Your task to perform on an android device: Open Chrome and go to settings Image 0: 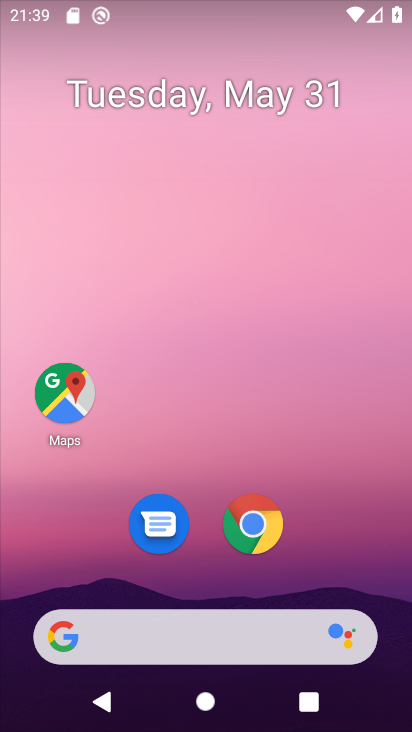
Step 0: click (256, 516)
Your task to perform on an android device: Open Chrome and go to settings Image 1: 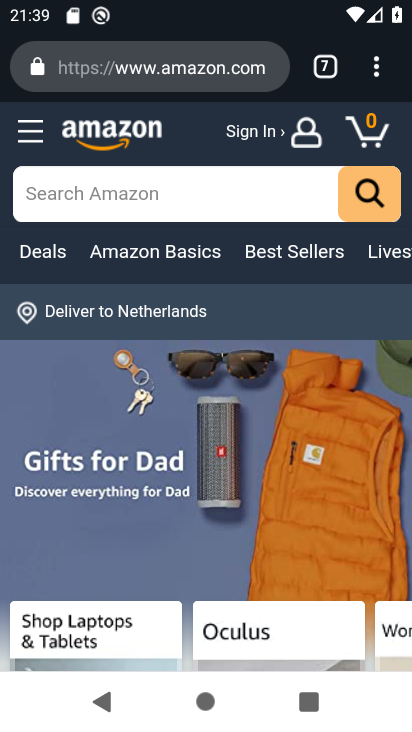
Step 1: click (378, 69)
Your task to perform on an android device: Open Chrome and go to settings Image 2: 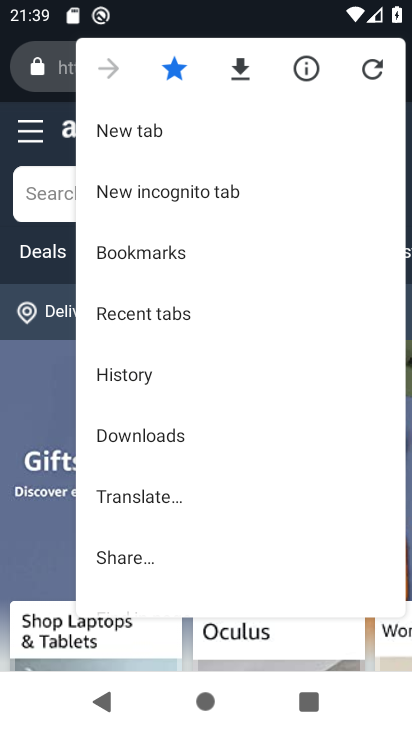
Step 2: drag from (254, 446) to (246, 221)
Your task to perform on an android device: Open Chrome and go to settings Image 3: 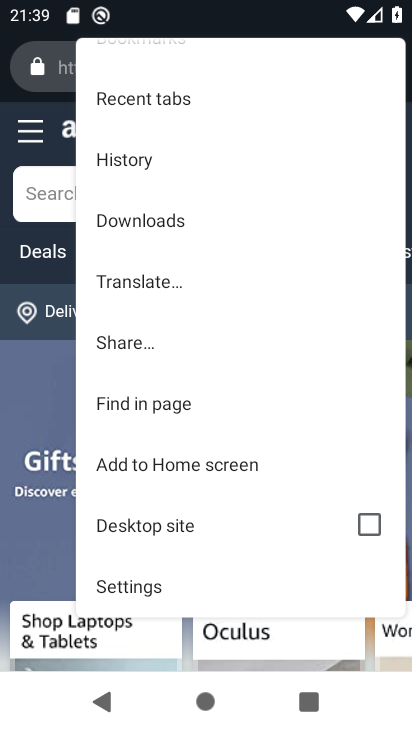
Step 3: click (210, 586)
Your task to perform on an android device: Open Chrome and go to settings Image 4: 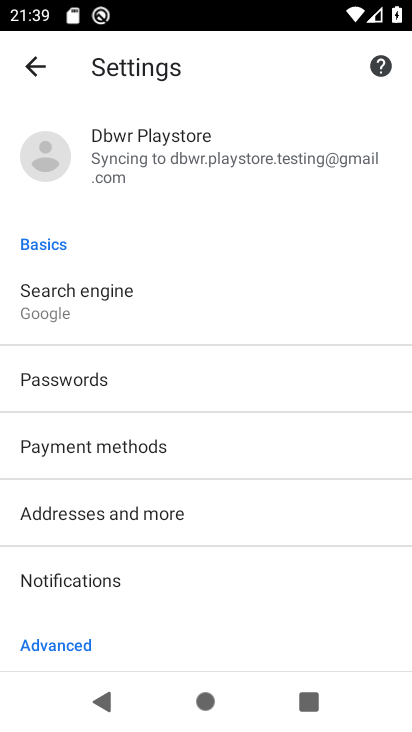
Step 4: task complete